Your task to perform on an android device: turn on improve location accuracy Image 0: 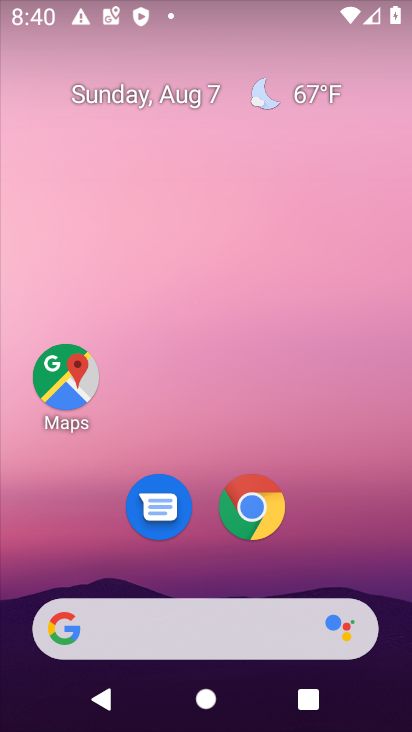
Step 0: drag from (216, 613) to (387, 97)
Your task to perform on an android device: turn on improve location accuracy Image 1: 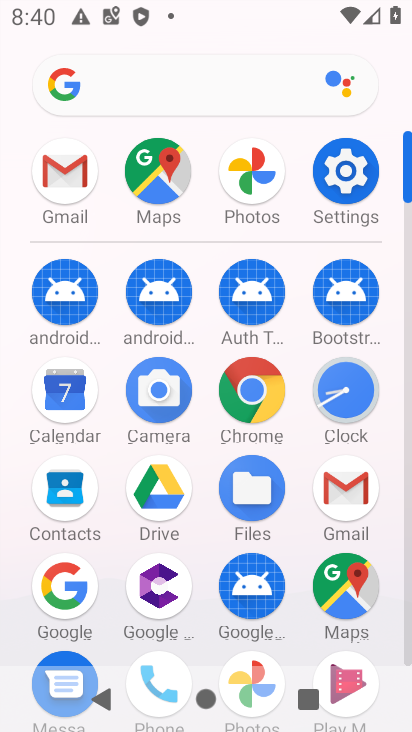
Step 1: drag from (184, 616) to (234, 275)
Your task to perform on an android device: turn on improve location accuracy Image 2: 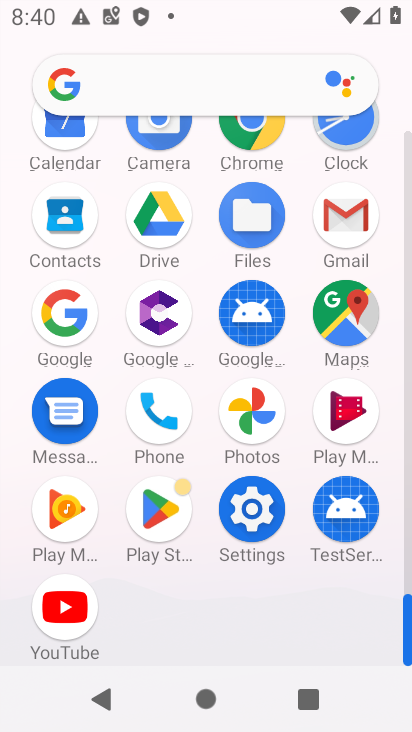
Step 2: drag from (255, 512) to (278, 349)
Your task to perform on an android device: turn on improve location accuracy Image 3: 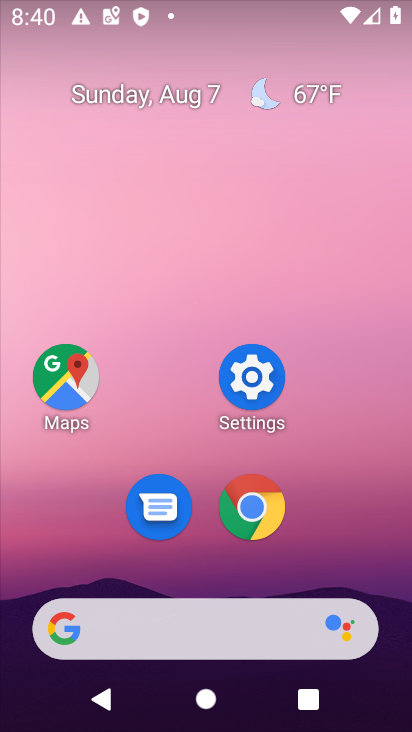
Step 3: click (255, 382)
Your task to perform on an android device: turn on improve location accuracy Image 4: 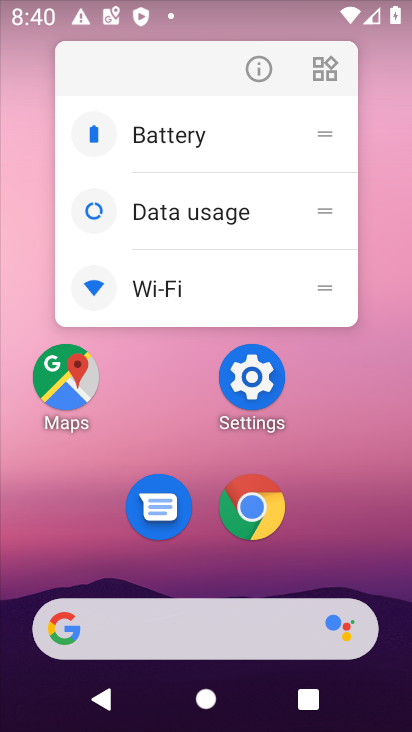
Step 4: click (255, 382)
Your task to perform on an android device: turn on improve location accuracy Image 5: 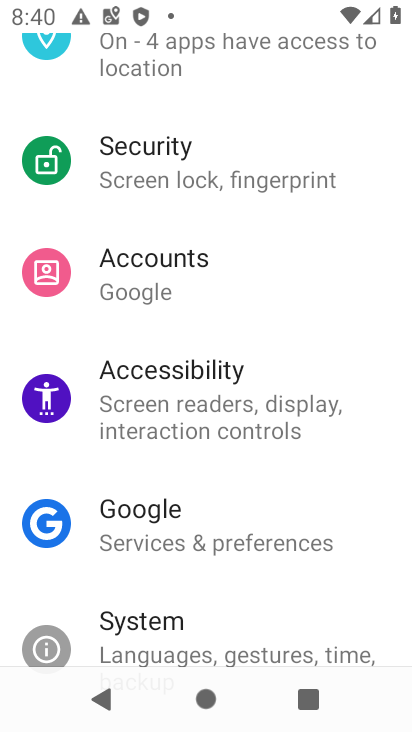
Step 5: drag from (366, 240) to (386, 85)
Your task to perform on an android device: turn on improve location accuracy Image 6: 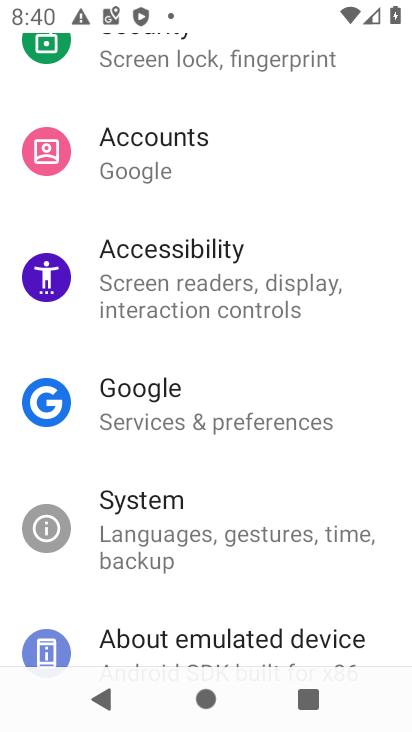
Step 6: drag from (294, 123) to (259, 634)
Your task to perform on an android device: turn on improve location accuracy Image 7: 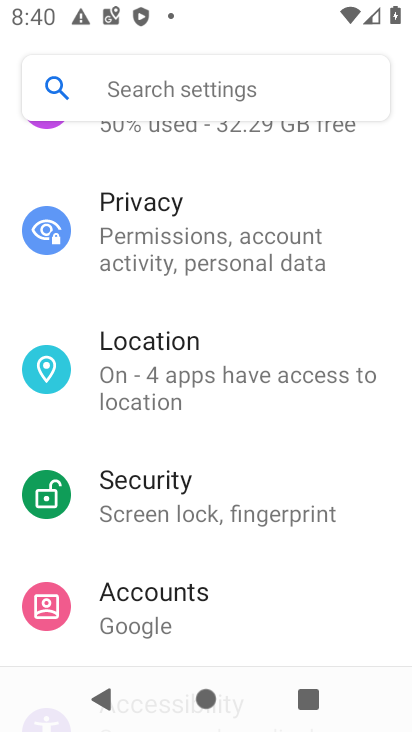
Step 7: click (148, 358)
Your task to perform on an android device: turn on improve location accuracy Image 8: 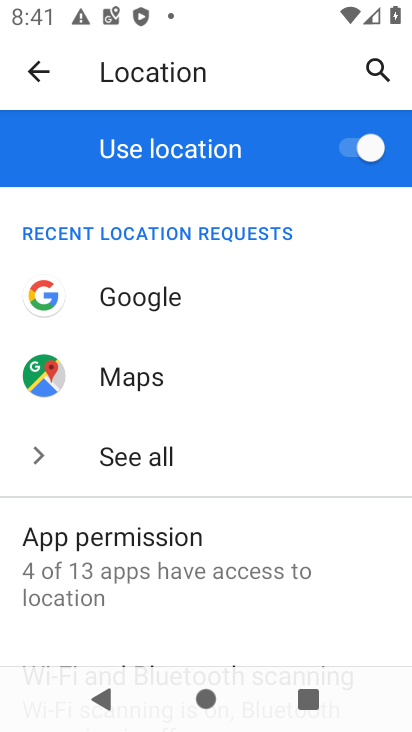
Step 8: drag from (239, 613) to (329, 269)
Your task to perform on an android device: turn on improve location accuracy Image 9: 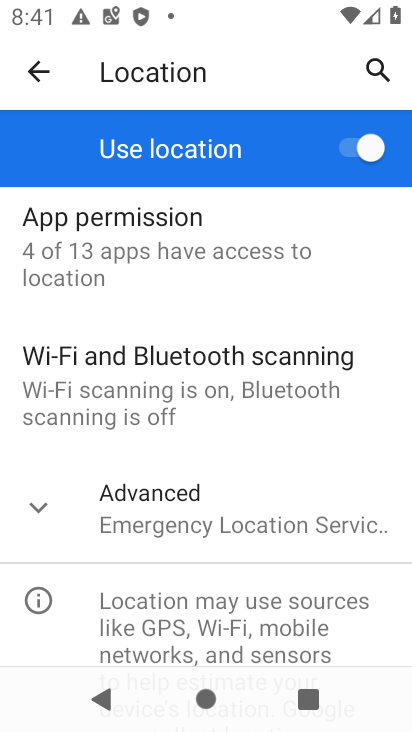
Step 9: click (147, 540)
Your task to perform on an android device: turn on improve location accuracy Image 10: 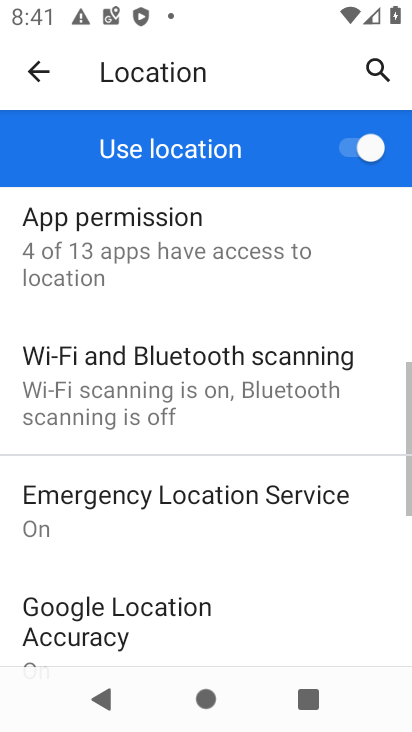
Step 10: drag from (226, 590) to (97, 484)
Your task to perform on an android device: turn on improve location accuracy Image 11: 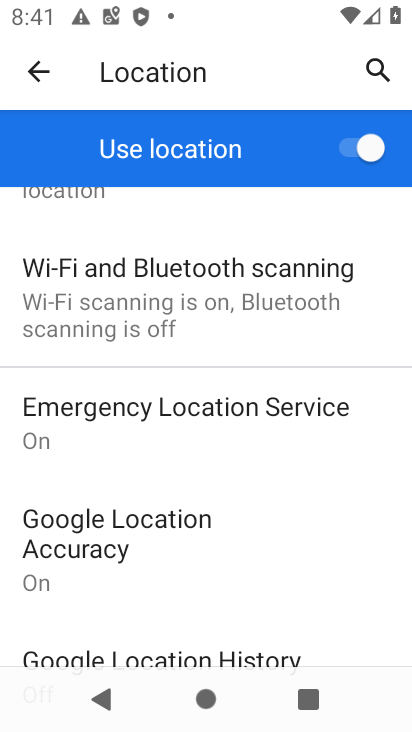
Step 11: click (81, 523)
Your task to perform on an android device: turn on improve location accuracy Image 12: 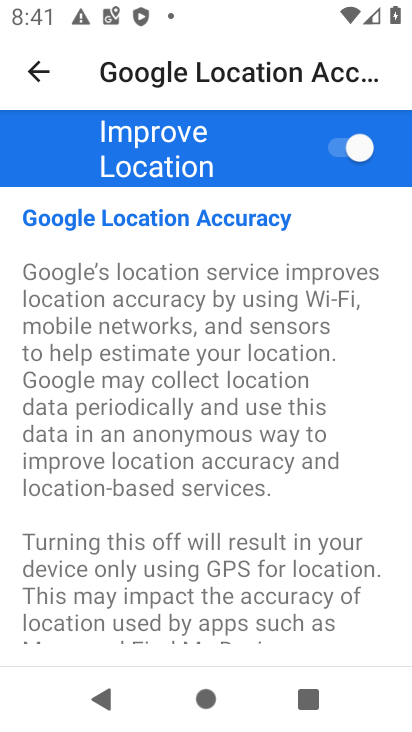
Step 12: task complete